Your task to perform on an android device: Open Chrome and go to settings Image 0: 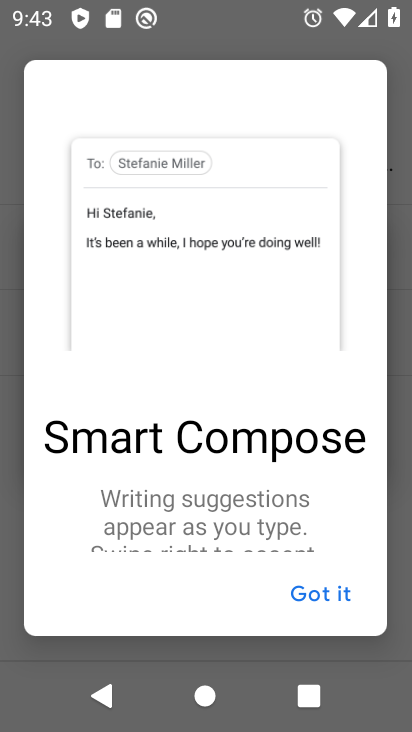
Step 0: press home button
Your task to perform on an android device: Open Chrome and go to settings Image 1: 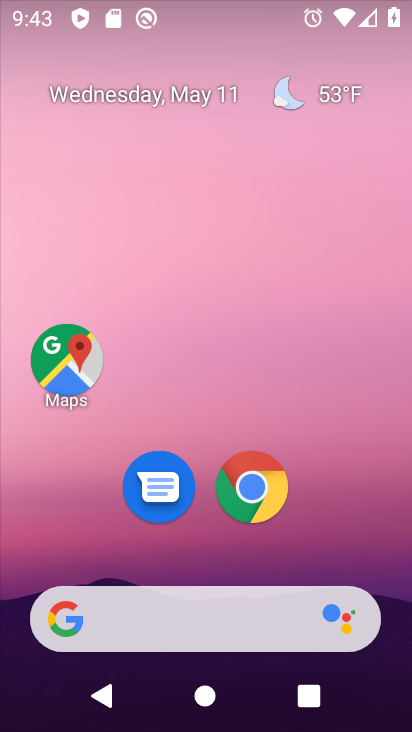
Step 1: click (236, 503)
Your task to perform on an android device: Open Chrome and go to settings Image 2: 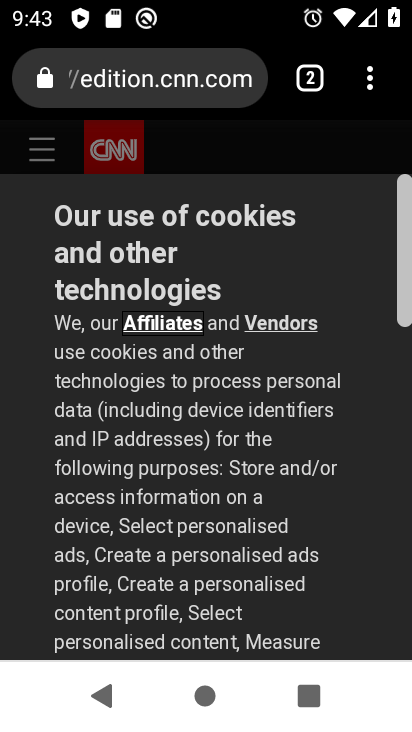
Step 2: task complete